Your task to perform on an android device: change keyboard looks Image 0: 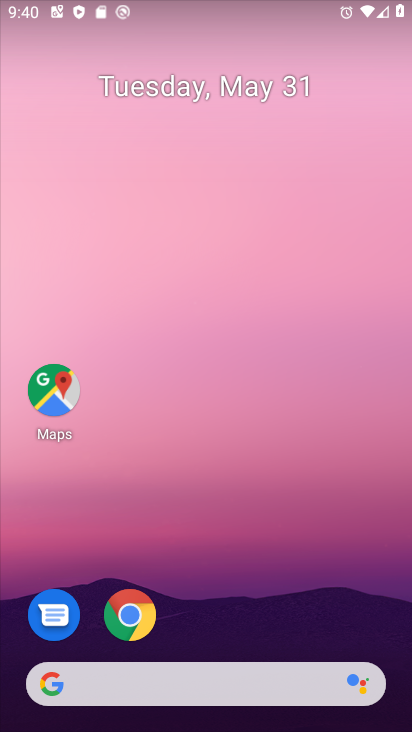
Step 0: drag from (410, 622) to (332, 92)
Your task to perform on an android device: change keyboard looks Image 1: 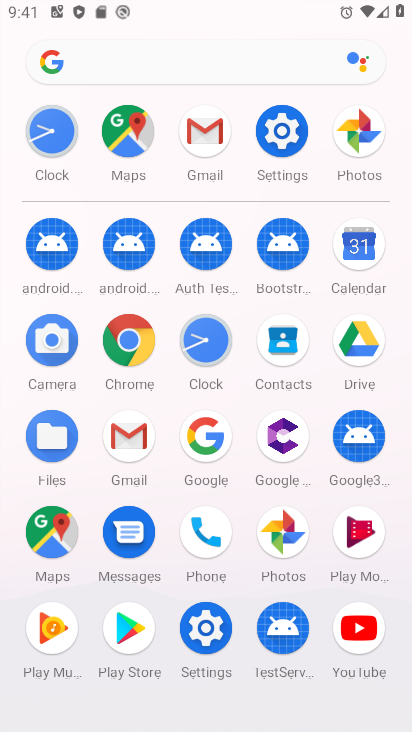
Step 1: click (201, 627)
Your task to perform on an android device: change keyboard looks Image 2: 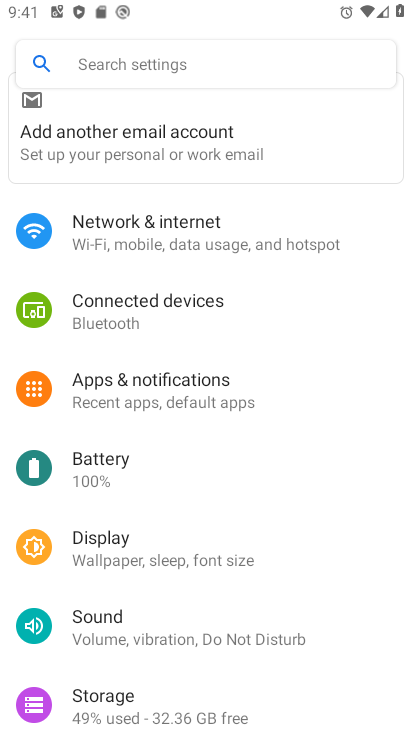
Step 2: drag from (316, 647) to (344, 140)
Your task to perform on an android device: change keyboard looks Image 3: 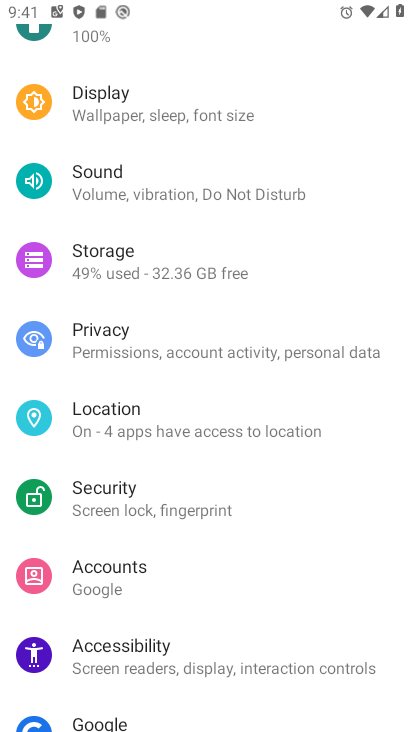
Step 3: drag from (330, 602) to (358, 122)
Your task to perform on an android device: change keyboard looks Image 4: 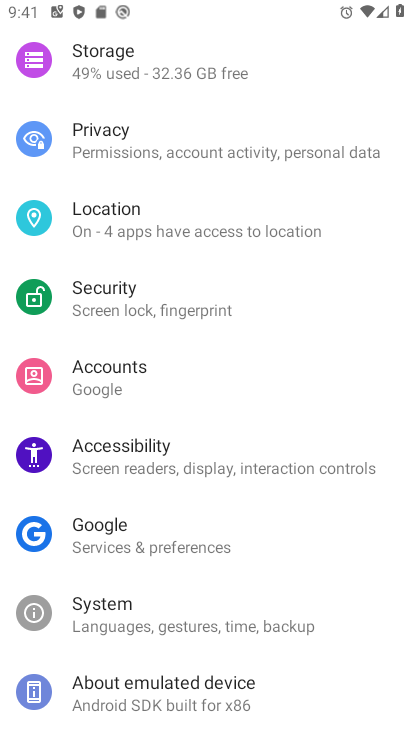
Step 4: click (113, 609)
Your task to perform on an android device: change keyboard looks Image 5: 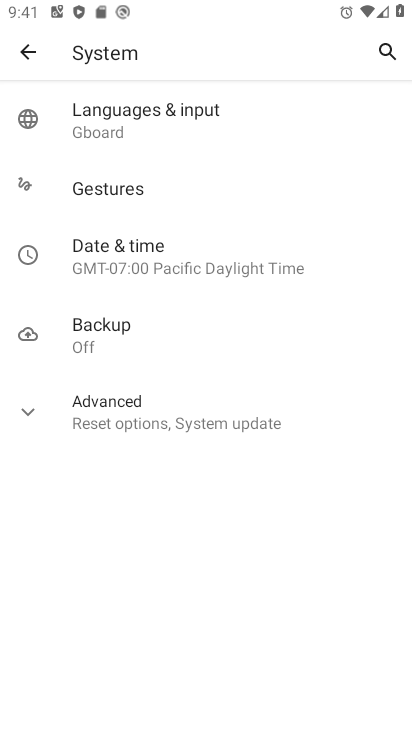
Step 5: click (119, 124)
Your task to perform on an android device: change keyboard looks Image 6: 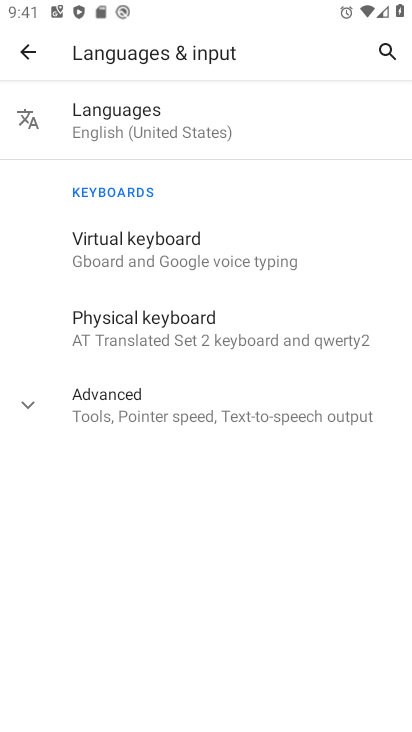
Step 6: click (116, 324)
Your task to perform on an android device: change keyboard looks Image 7: 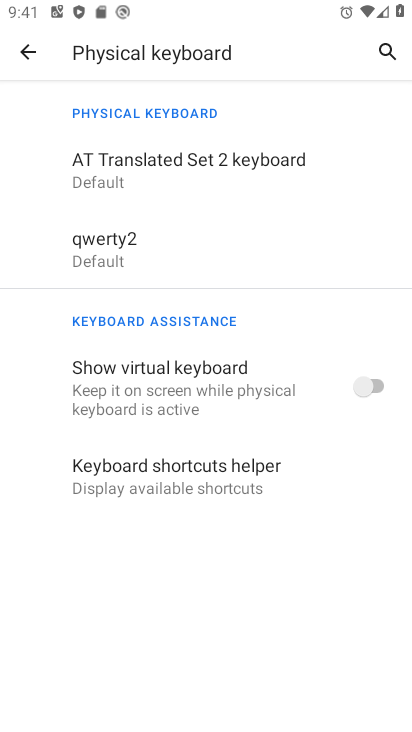
Step 7: click (108, 233)
Your task to perform on an android device: change keyboard looks Image 8: 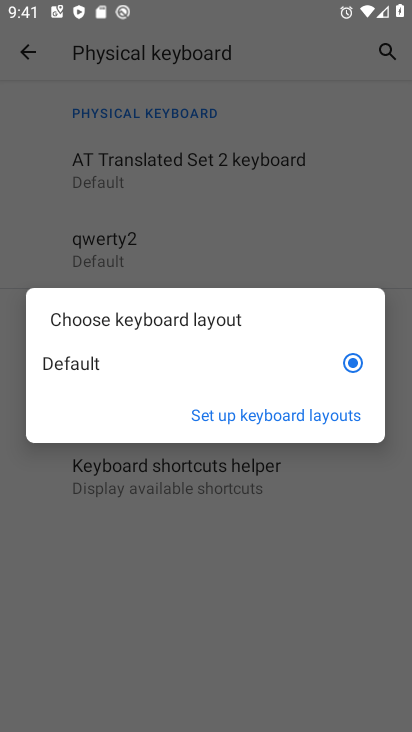
Step 8: click (288, 416)
Your task to perform on an android device: change keyboard looks Image 9: 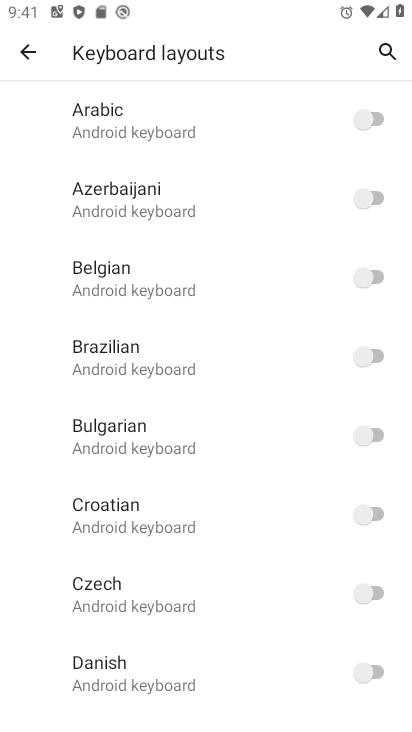
Step 9: drag from (285, 593) to (289, 110)
Your task to perform on an android device: change keyboard looks Image 10: 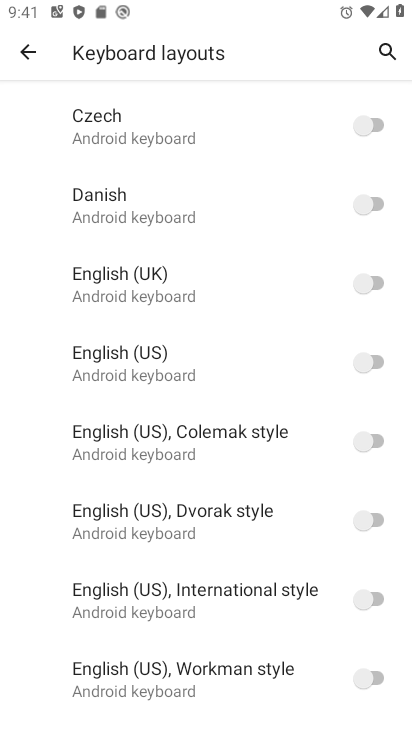
Step 10: click (376, 356)
Your task to perform on an android device: change keyboard looks Image 11: 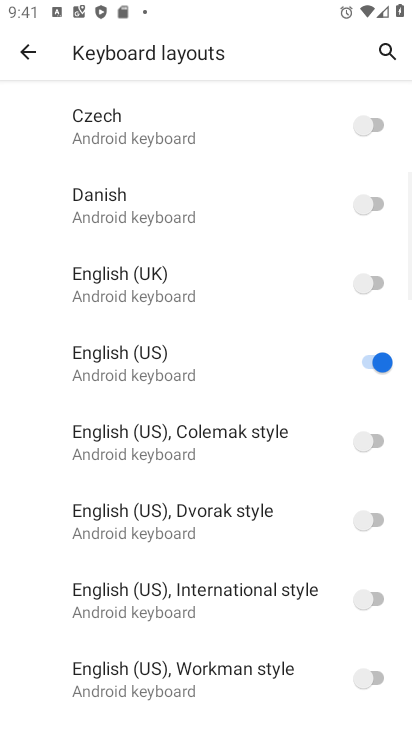
Step 11: task complete